Your task to perform on an android device: allow notifications from all sites in the chrome app Image 0: 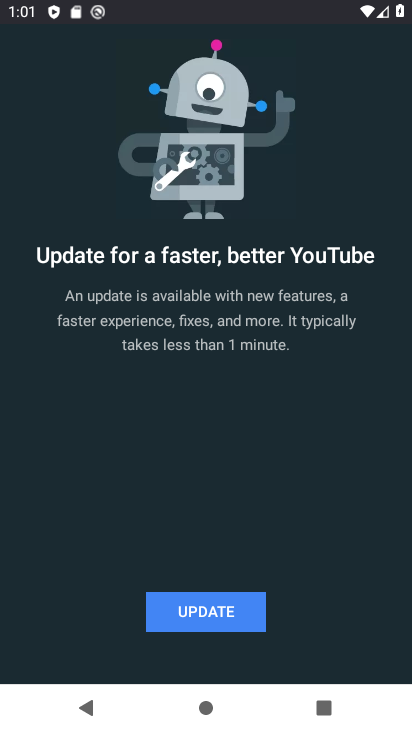
Step 0: press home button
Your task to perform on an android device: allow notifications from all sites in the chrome app Image 1: 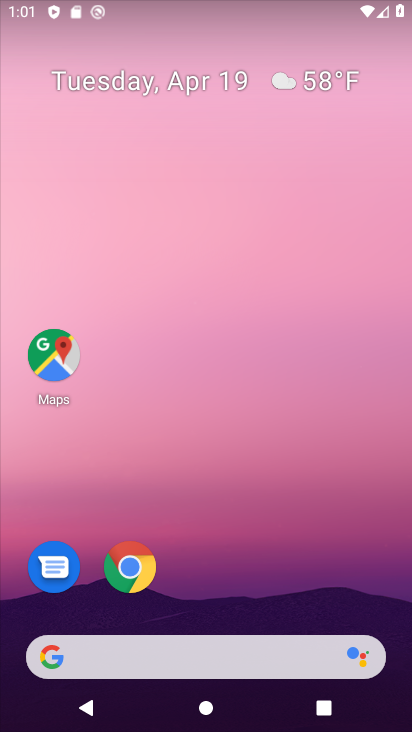
Step 1: click (129, 571)
Your task to perform on an android device: allow notifications from all sites in the chrome app Image 2: 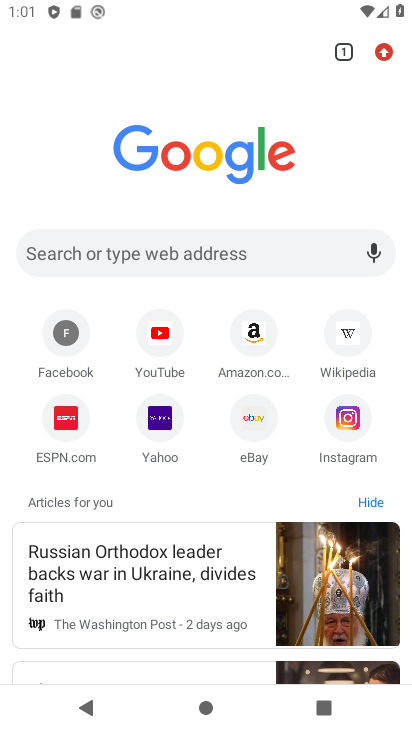
Step 2: click (383, 57)
Your task to perform on an android device: allow notifications from all sites in the chrome app Image 3: 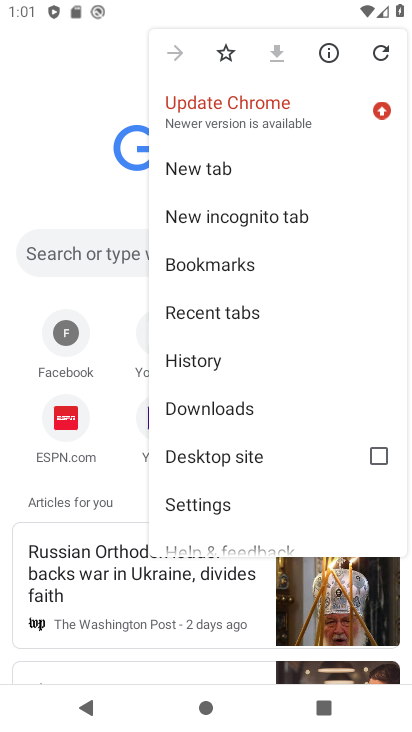
Step 3: drag from (259, 503) to (336, 195)
Your task to perform on an android device: allow notifications from all sites in the chrome app Image 4: 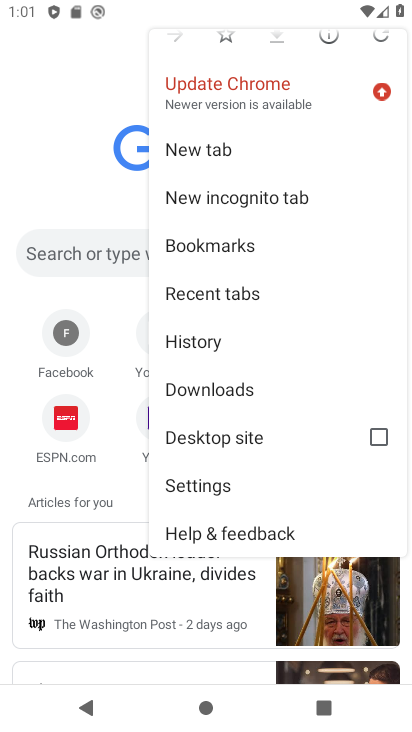
Step 4: click (206, 486)
Your task to perform on an android device: allow notifications from all sites in the chrome app Image 5: 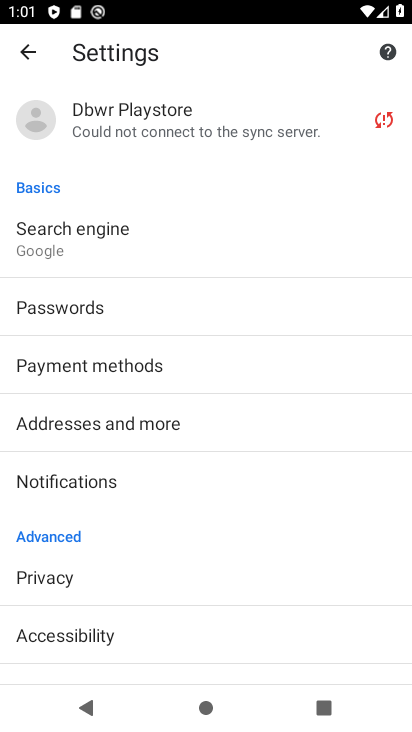
Step 5: drag from (225, 557) to (277, 303)
Your task to perform on an android device: allow notifications from all sites in the chrome app Image 6: 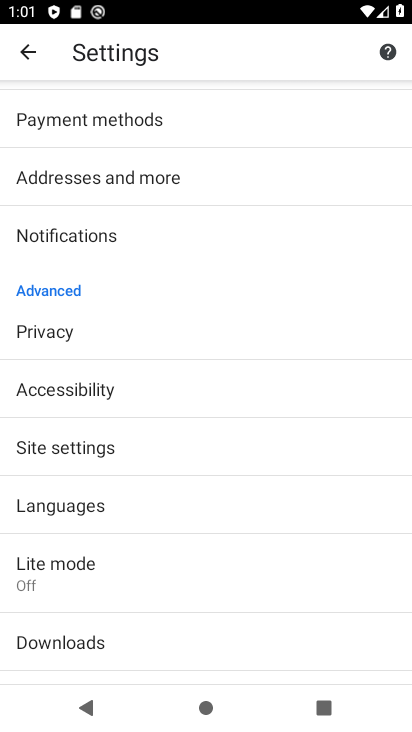
Step 6: click (61, 452)
Your task to perform on an android device: allow notifications from all sites in the chrome app Image 7: 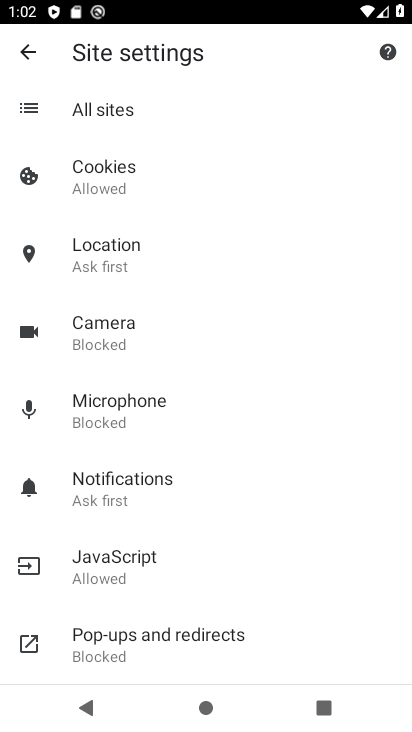
Step 7: click (93, 493)
Your task to perform on an android device: allow notifications from all sites in the chrome app Image 8: 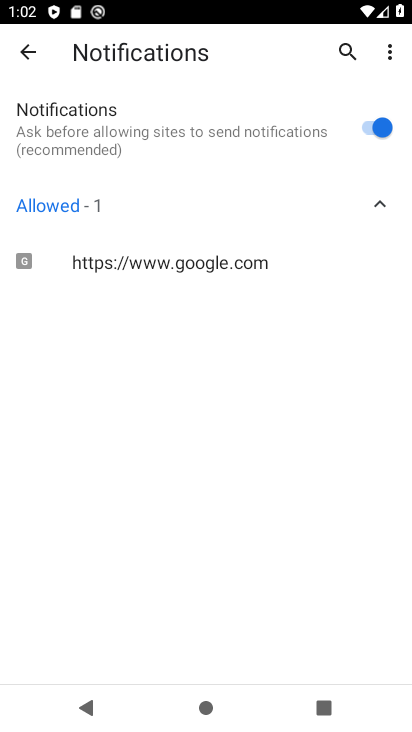
Step 8: task complete